Your task to perform on an android device: Go to internet settings Image 0: 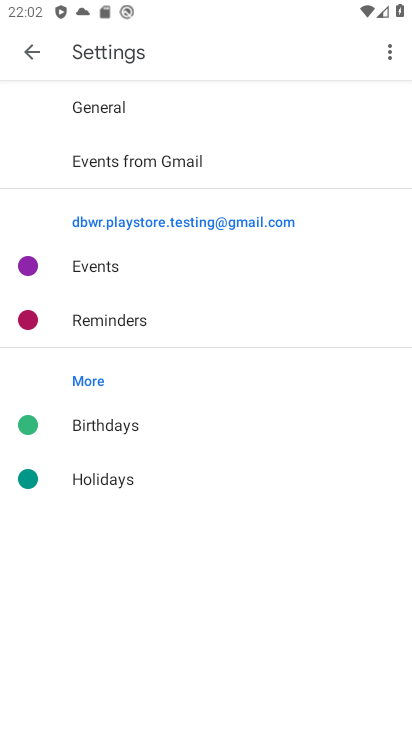
Step 0: press home button
Your task to perform on an android device: Go to internet settings Image 1: 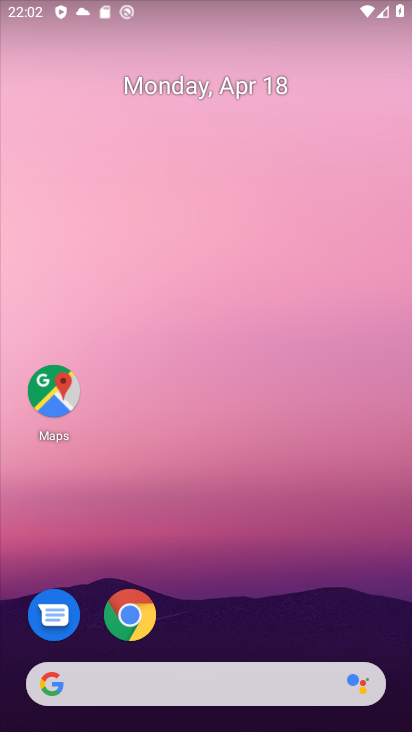
Step 1: drag from (347, 634) to (359, 102)
Your task to perform on an android device: Go to internet settings Image 2: 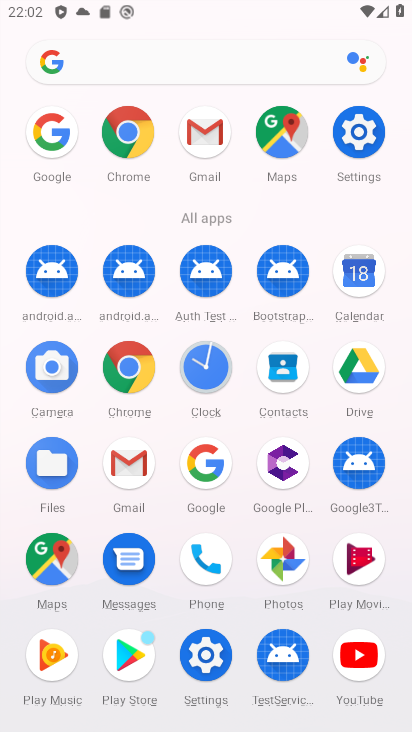
Step 2: click (360, 144)
Your task to perform on an android device: Go to internet settings Image 3: 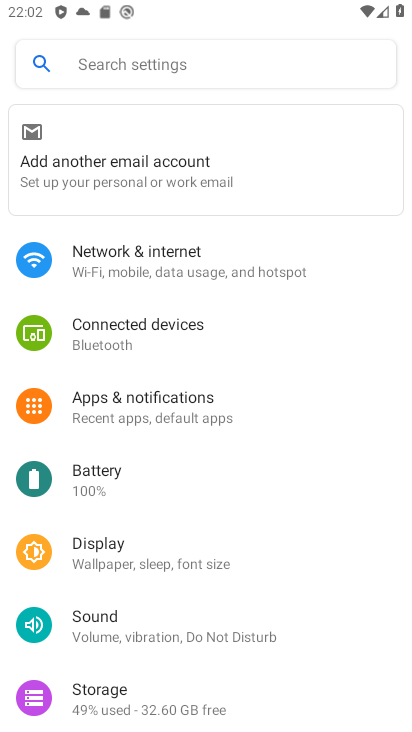
Step 3: click (197, 281)
Your task to perform on an android device: Go to internet settings Image 4: 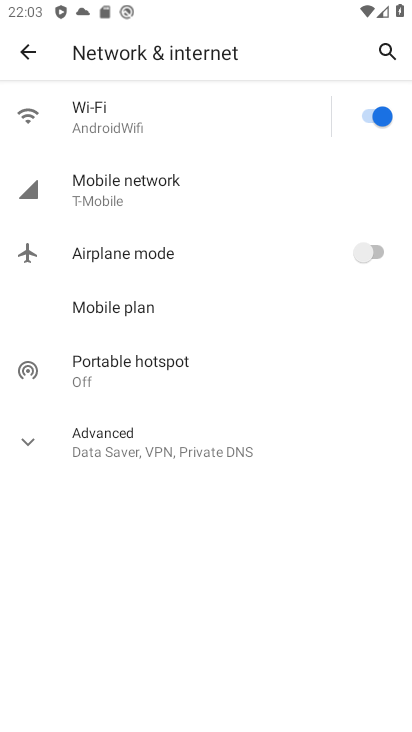
Step 4: click (27, 451)
Your task to perform on an android device: Go to internet settings Image 5: 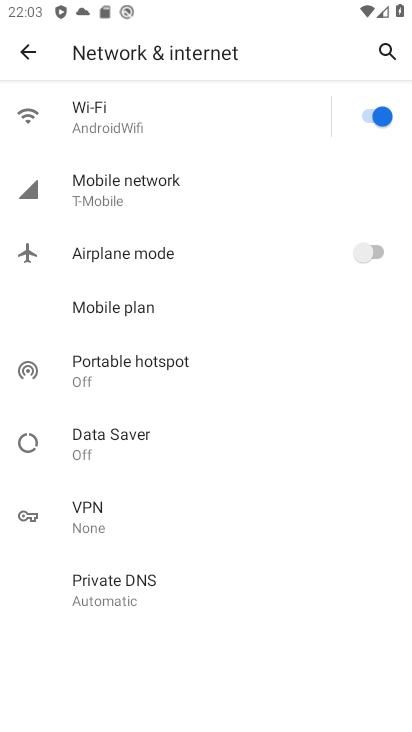
Step 5: task complete